Your task to perform on an android device: set the timer Image 0: 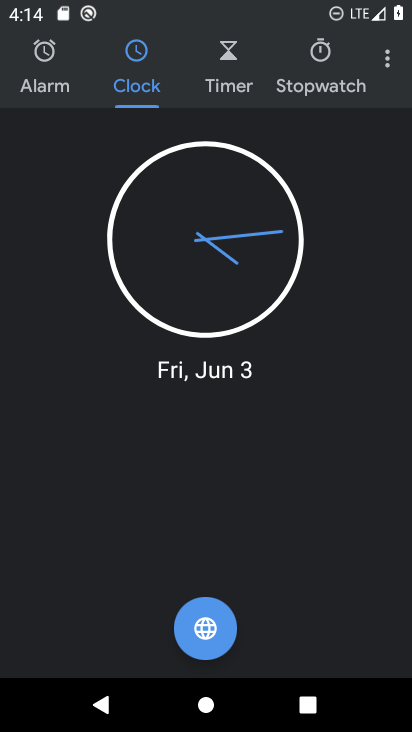
Step 0: click (235, 64)
Your task to perform on an android device: set the timer Image 1: 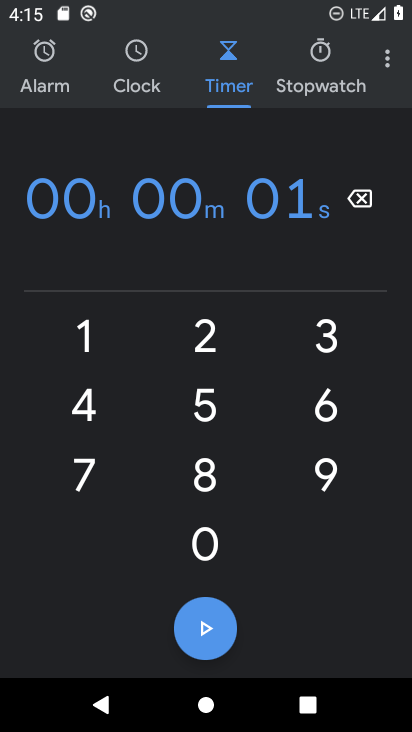
Step 1: click (200, 326)
Your task to perform on an android device: set the timer Image 2: 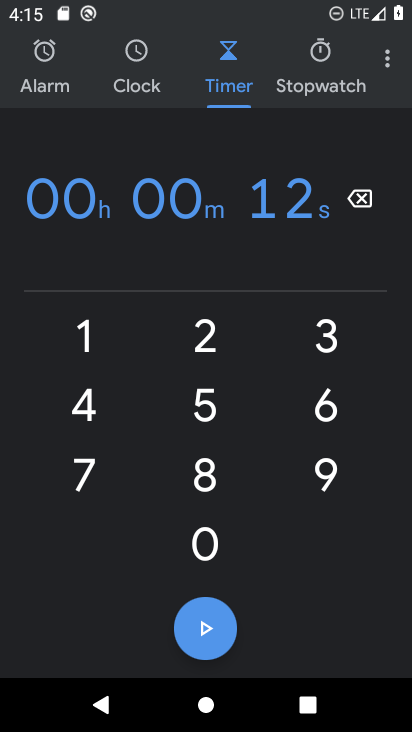
Step 2: task complete